Your task to perform on an android device: toggle translation in the chrome app Image 0: 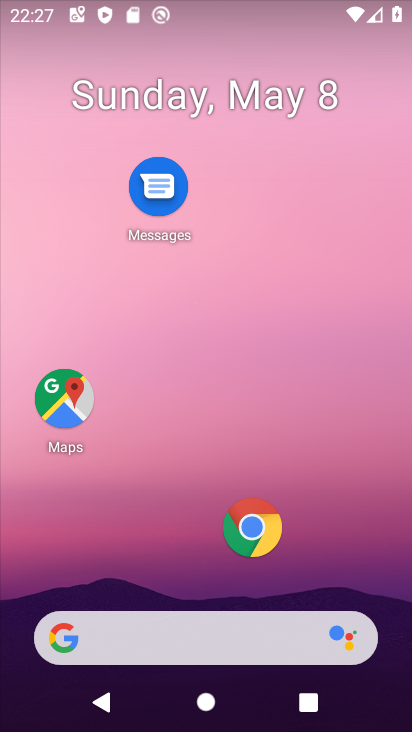
Step 0: click (252, 537)
Your task to perform on an android device: toggle translation in the chrome app Image 1: 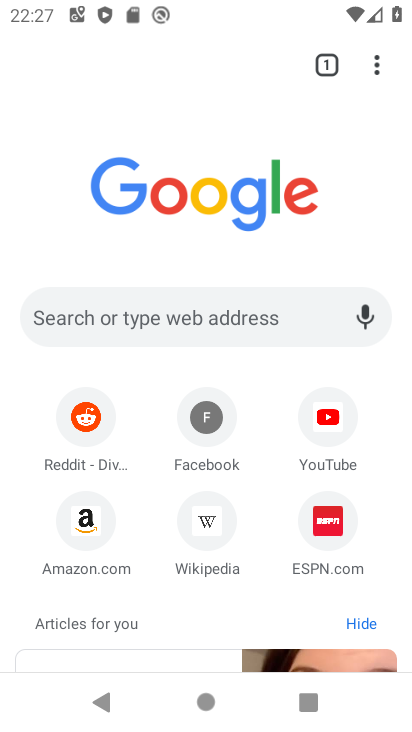
Step 1: click (370, 67)
Your task to perform on an android device: toggle translation in the chrome app Image 2: 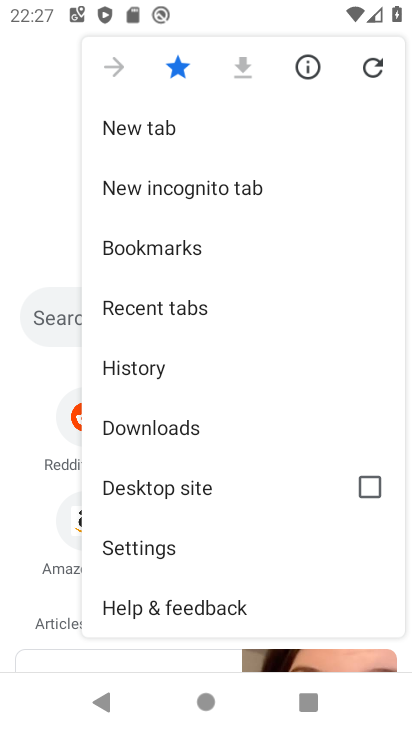
Step 2: drag from (175, 547) to (195, 246)
Your task to perform on an android device: toggle translation in the chrome app Image 3: 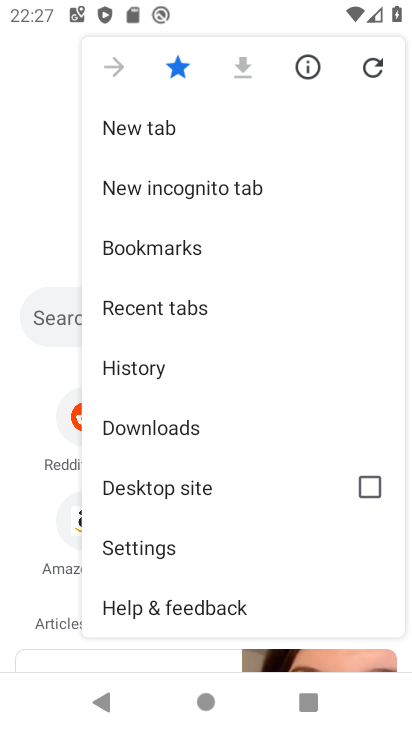
Step 3: click (165, 538)
Your task to perform on an android device: toggle translation in the chrome app Image 4: 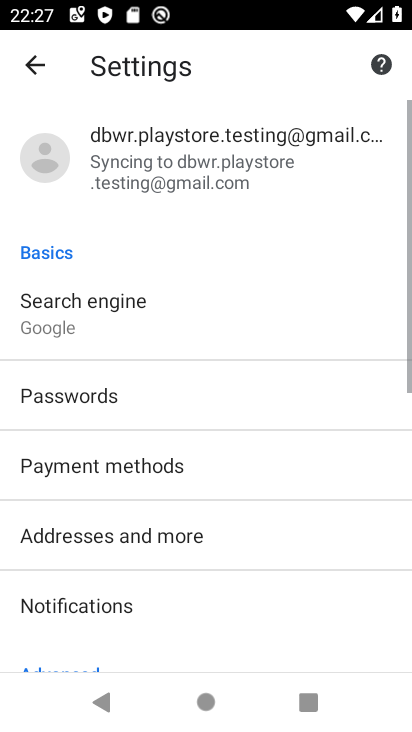
Step 4: drag from (246, 485) to (184, 101)
Your task to perform on an android device: toggle translation in the chrome app Image 5: 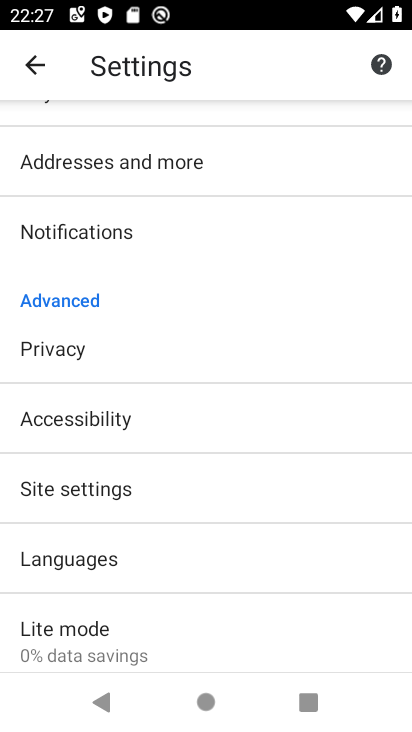
Step 5: click (134, 565)
Your task to perform on an android device: toggle translation in the chrome app Image 6: 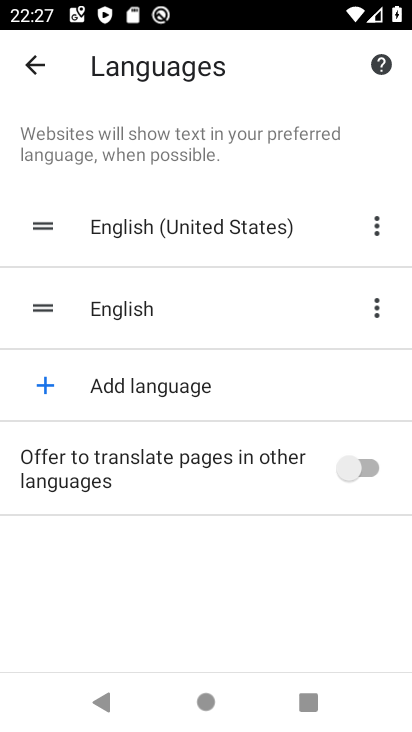
Step 6: click (360, 473)
Your task to perform on an android device: toggle translation in the chrome app Image 7: 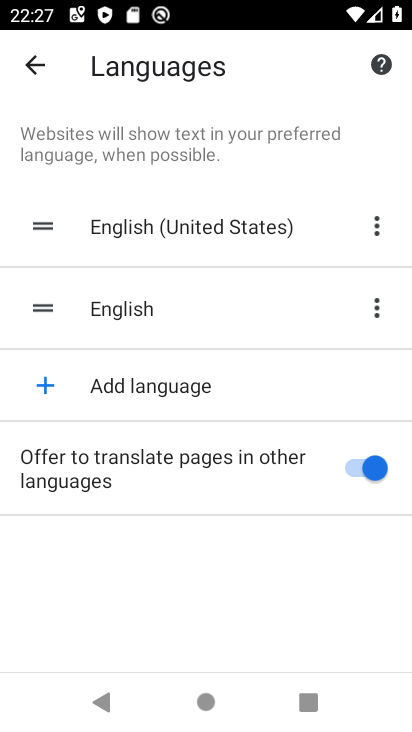
Step 7: task complete